Your task to perform on an android device: turn on location history Image 0: 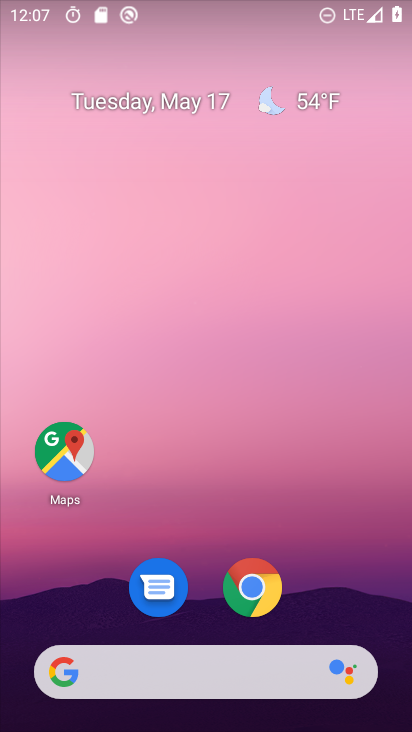
Step 0: click (261, 61)
Your task to perform on an android device: turn on location history Image 1: 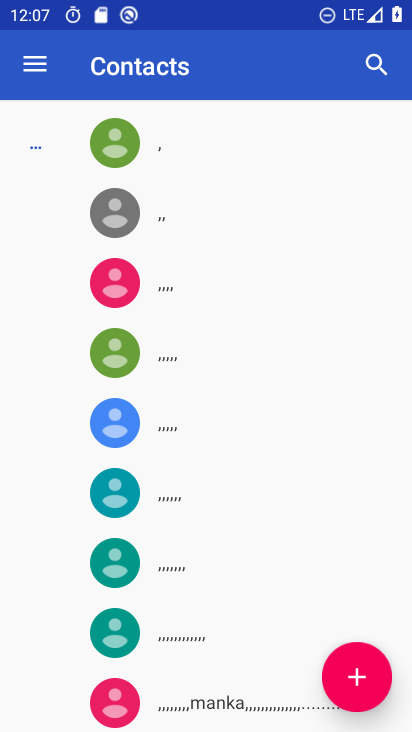
Step 1: press home button
Your task to perform on an android device: turn on location history Image 2: 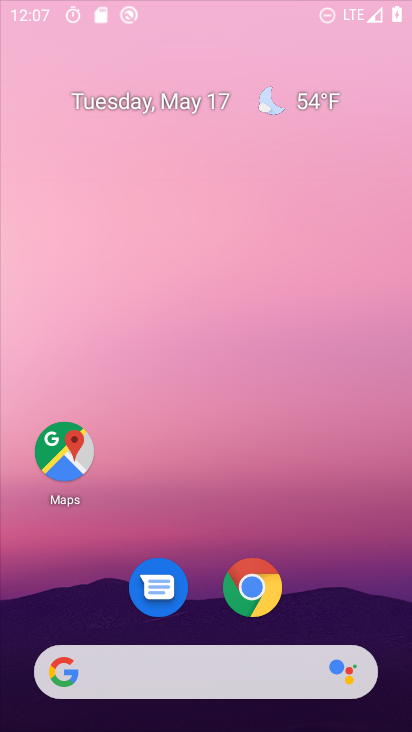
Step 2: drag from (193, 626) to (197, 178)
Your task to perform on an android device: turn on location history Image 3: 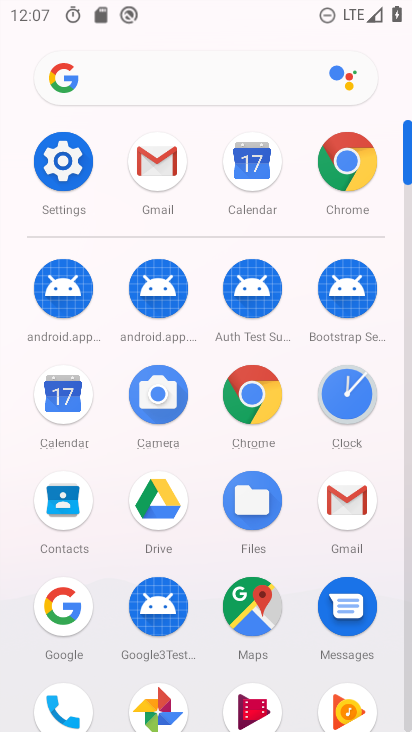
Step 3: click (56, 160)
Your task to perform on an android device: turn on location history Image 4: 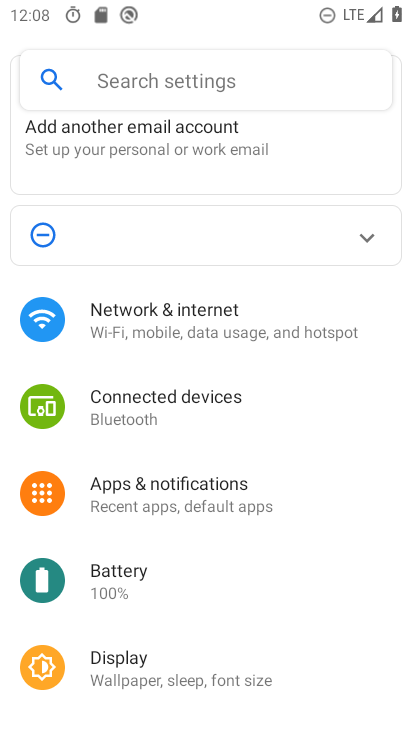
Step 4: drag from (188, 645) to (182, 121)
Your task to perform on an android device: turn on location history Image 5: 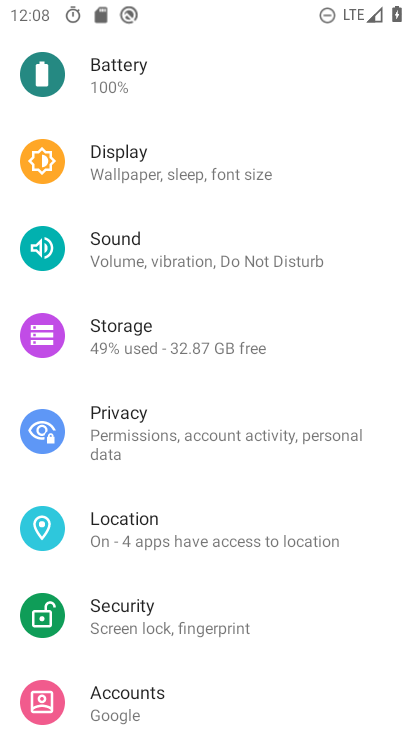
Step 5: click (169, 533)
Your task to perform on an android device: turn on location history Image 6: 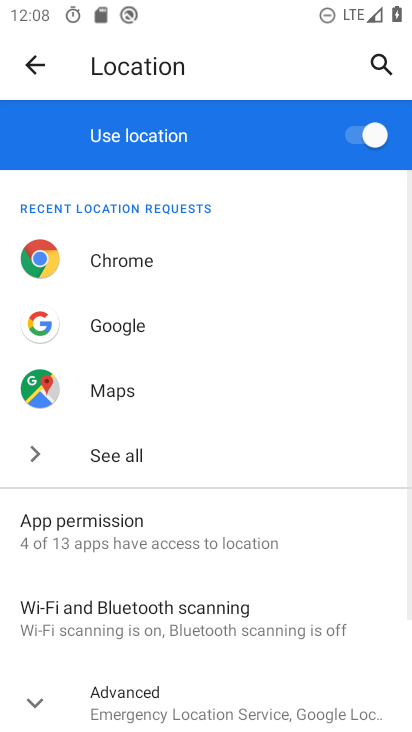
Step 6: drag from (197, 617) to (289, 106)
Your task to perform on an android device: turn on location history Image 7: 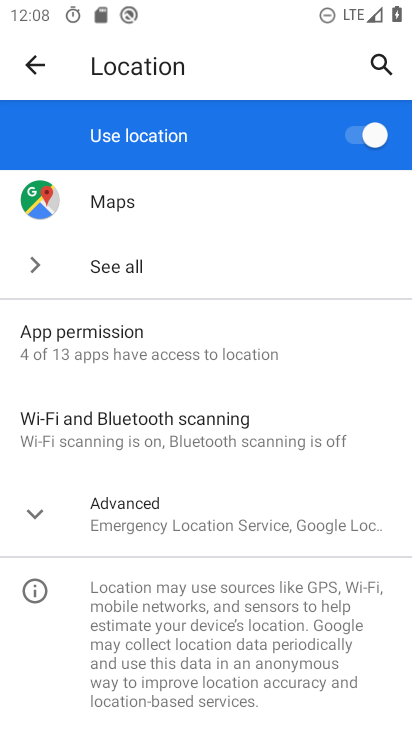
Step 7: click (171, 528)
Your task to perform on an android device: turn on location history Image 8: 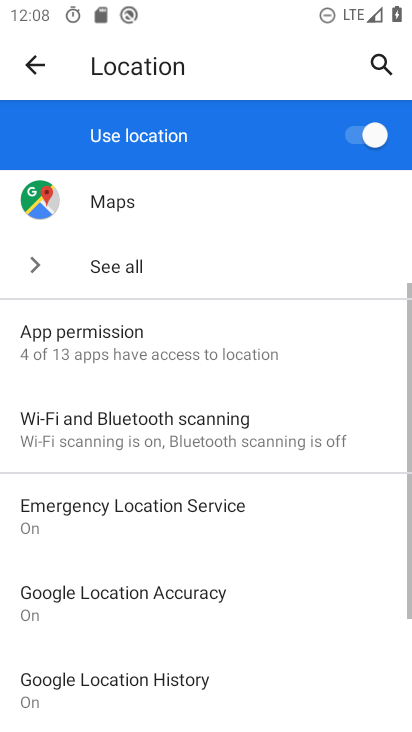
Step 8: drag from (254, 638) to (287, 290)
Your task to perform on an android device: turn on location history Image 9: 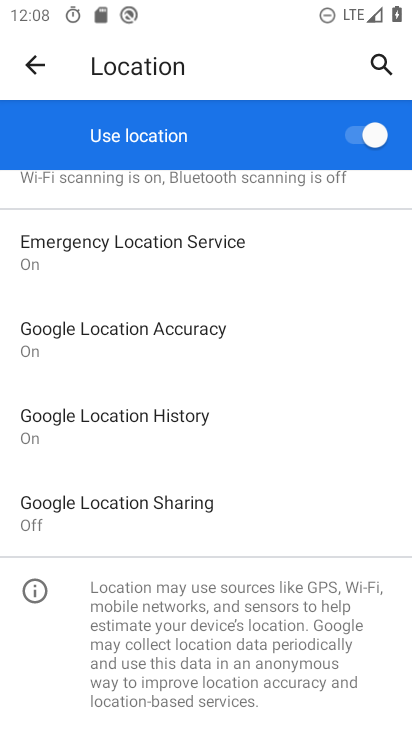
Step 9: click (121, 409)
Your task to perform on an android device: turn on location history Image 10: 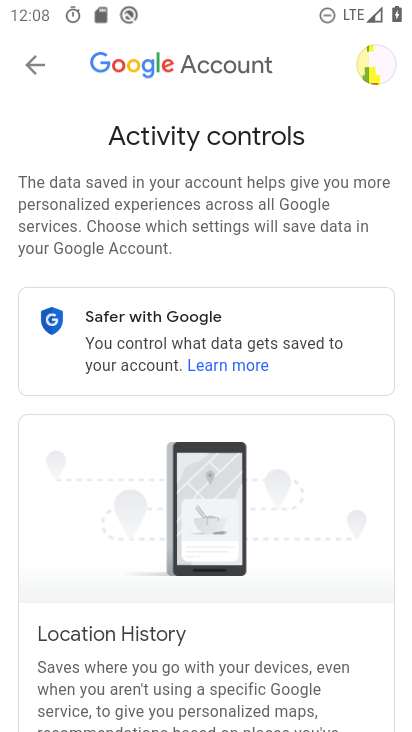
Step 10: drag from (227, 549) to (325, 124)
Your task to perform on an android device: turn on location history Image 11: 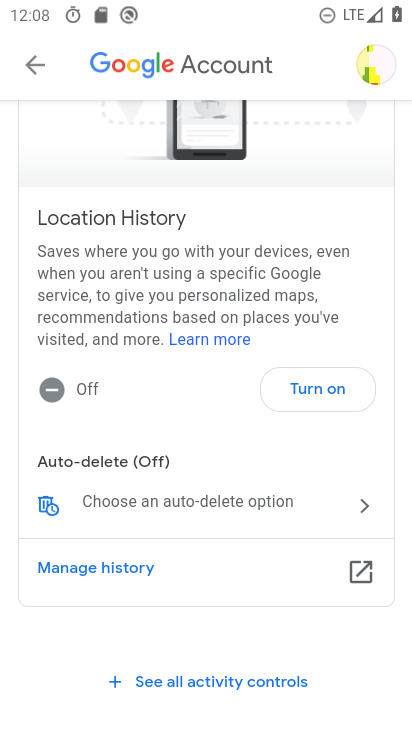
Step 11: click (313, 653)
Your task to perform on an android device: turn on location history Image 12: 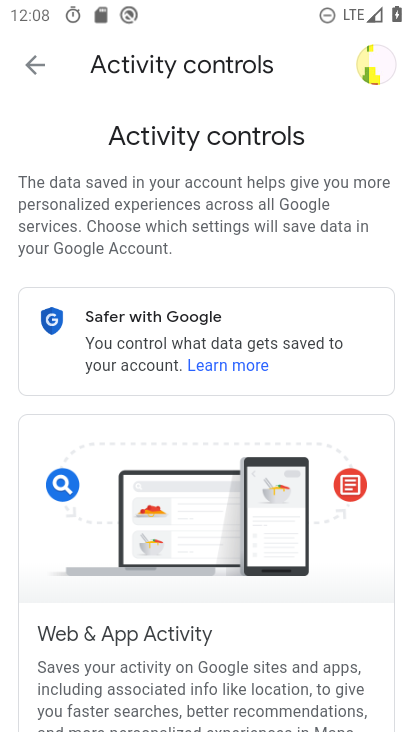
Step 12: task complete